Your task to perform on an android device: Open eBay Image 0: 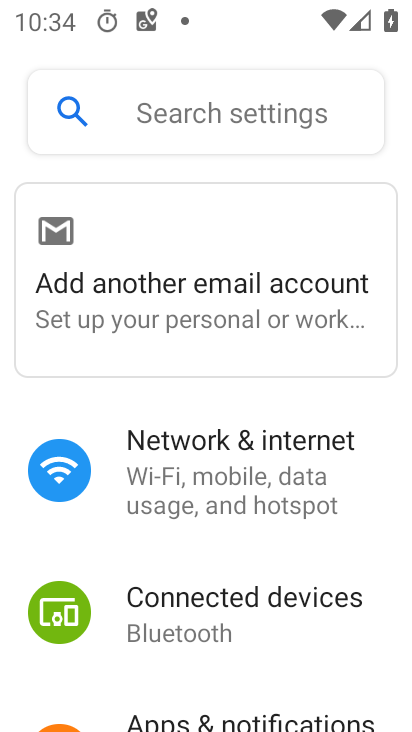
Step 0: press home button
Your task to perform on an android device: Open eBay Image 1: 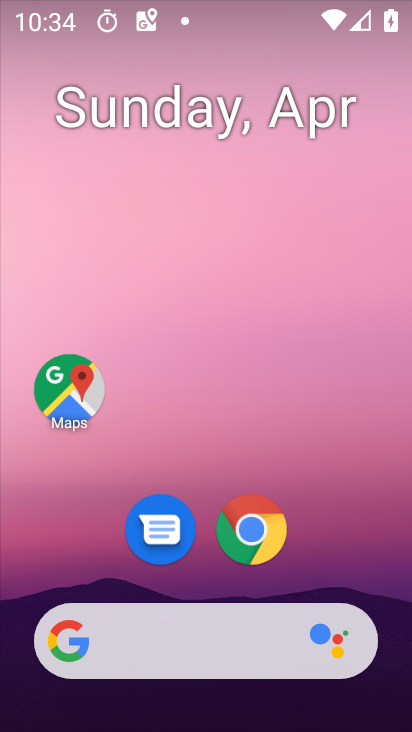
Step 1: click (155, 624)
Your task to perform on an android device: Open eBay Image 2: 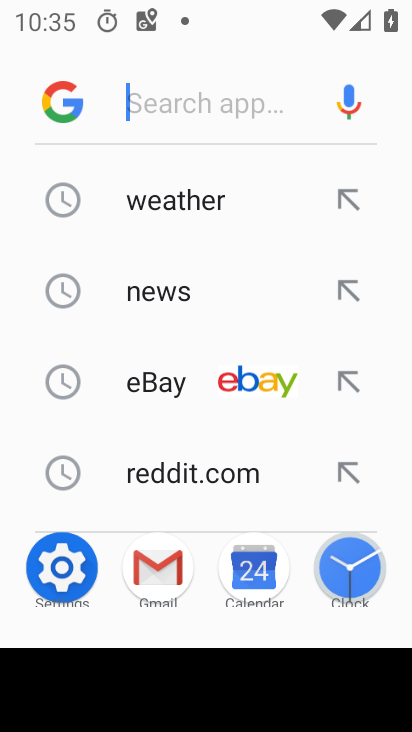
Step 2: click (240, 382)
Your task to perform on an android device: Open eBay Image 3: 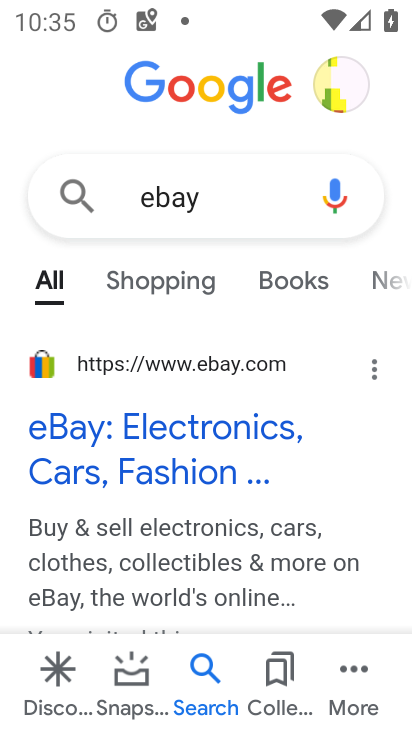
Step 3: click (126, 447)
Your task to perform on an android device: Open eBay Image 4: 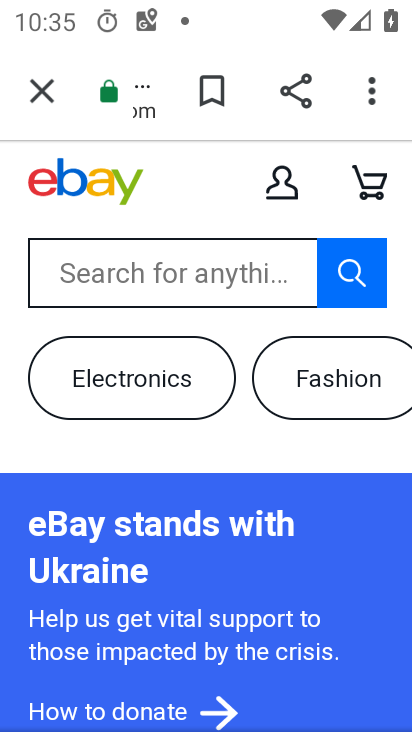
Step 4: task complete